Your task to perform on an android device: toggle pop-ups in chrome Image 0: 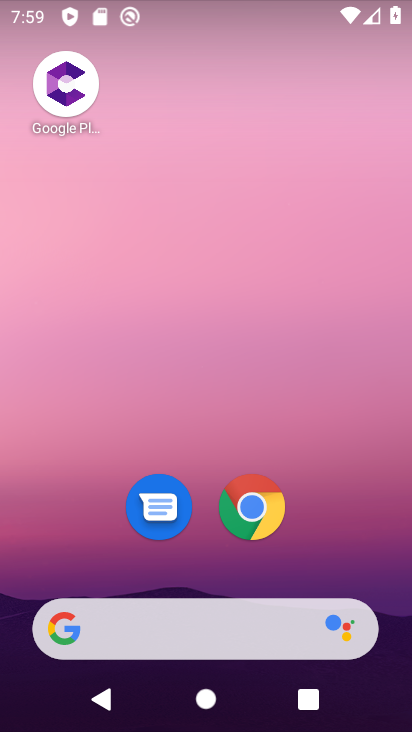
Step 0: click (258, 516)
Your task to perform on an android device: toggle pop-ups in chrome Image 1: 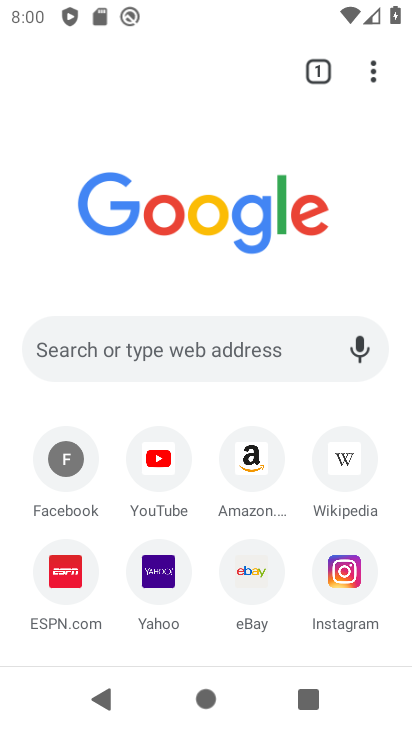
Step 1: click (372, 72)
Your task to perform on an android device: toggle pop-ups in chrome Image 2: 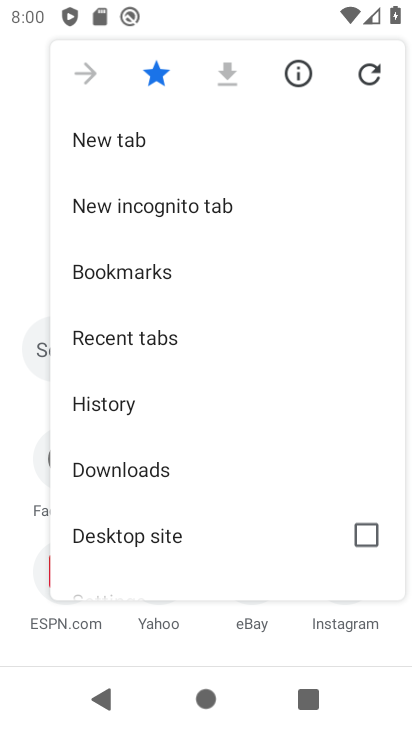
Step 2: drag from (187, 504) to (282, 194)
Your task to perform on an android device: toggle pop-ups in chrome Image 3: 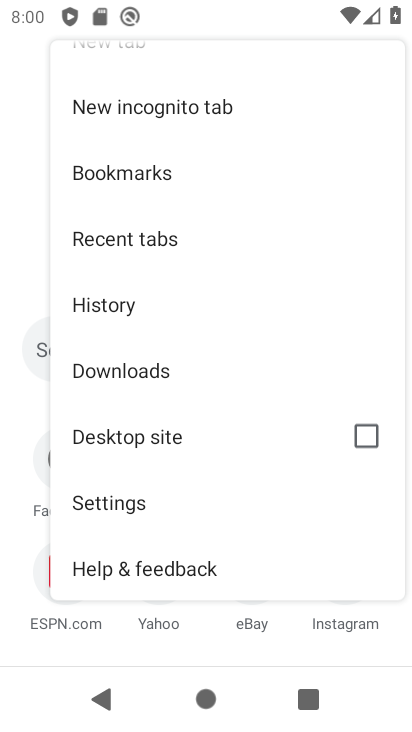
Step 3: click (112, 502)
Your task to perform on an android device: toggle pop-ups in chrome Image 4: 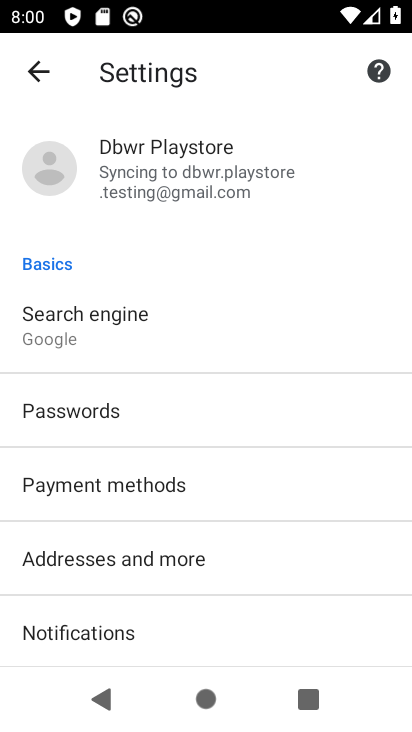
Step 4: drag from (124, 546) to (127, 262)
Your task to perform on an android device: toggle pop-ups in chrome Image 5: 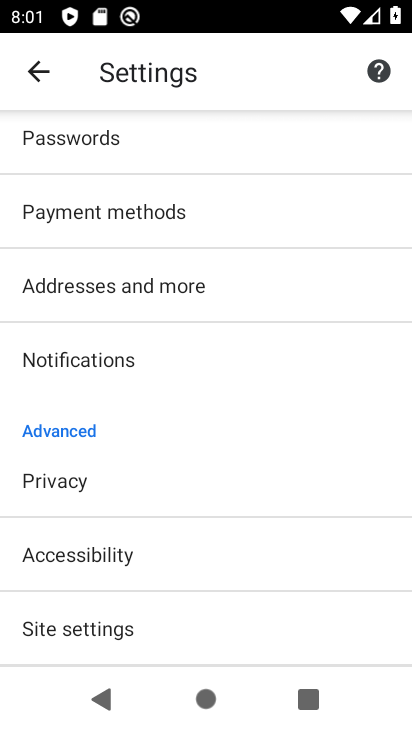
Step 5: click (86, 624)
Your task to perform on an android device: toggle pop-ups in chrome Image 6: 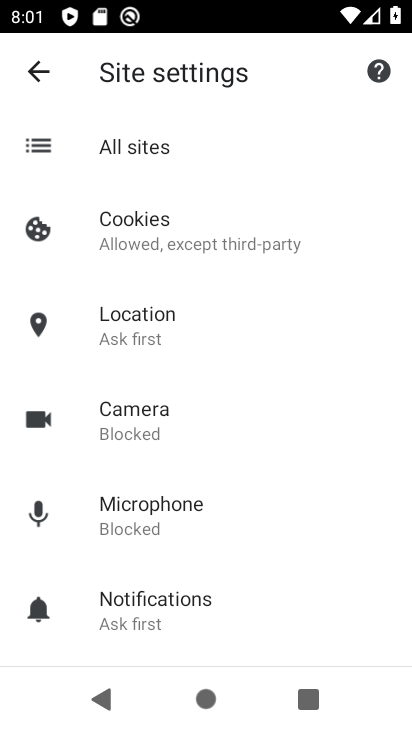
Step 6: drag from (192, 477) to (243, 182)
Your task to perform on an android device: toggle pop-ups in chrome Image 7: 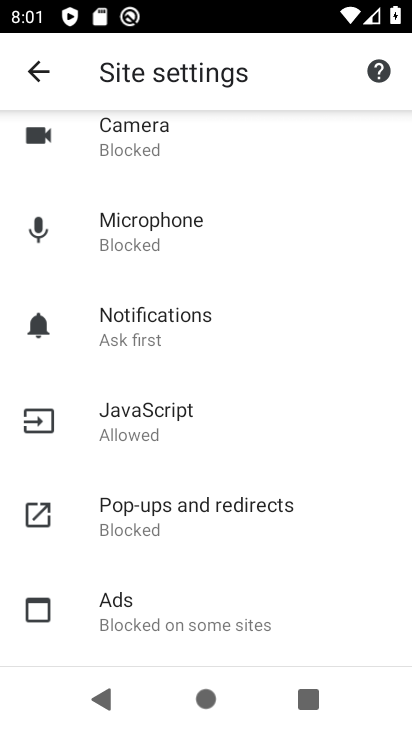
Step 7: click (216, 508)
Your task to perform on an android device: toggle pop-ups in chrome Image 8: 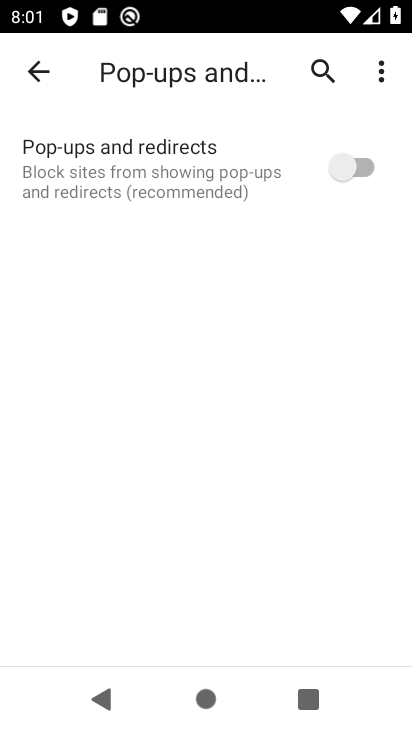
Step 8: click (374, 168)
Your task to perform on an android device: toggle pop-ups in chrome Image 9: 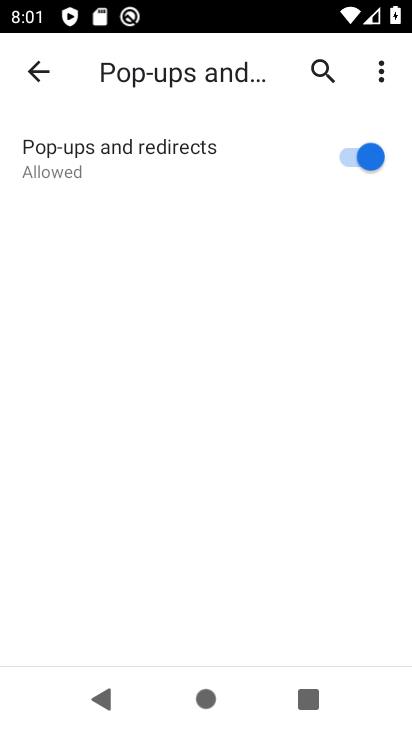
Step 9: task complete